Your task to perform on an android device: find photos in the google photos app Image 0: 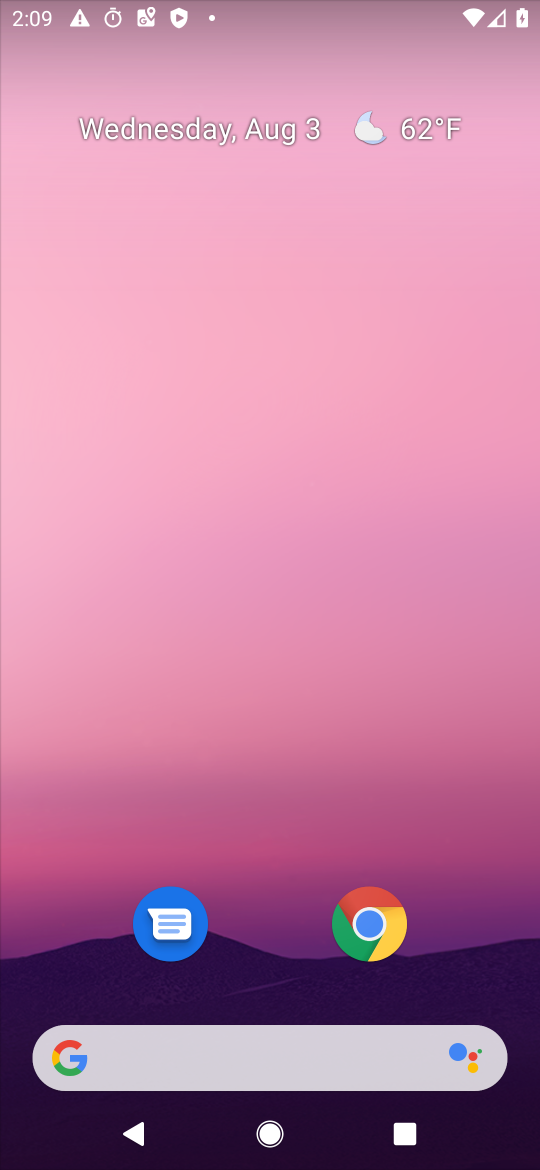
Step 0: press home button
Your task to perform on an android device: find photos in the google photos app Image 1: 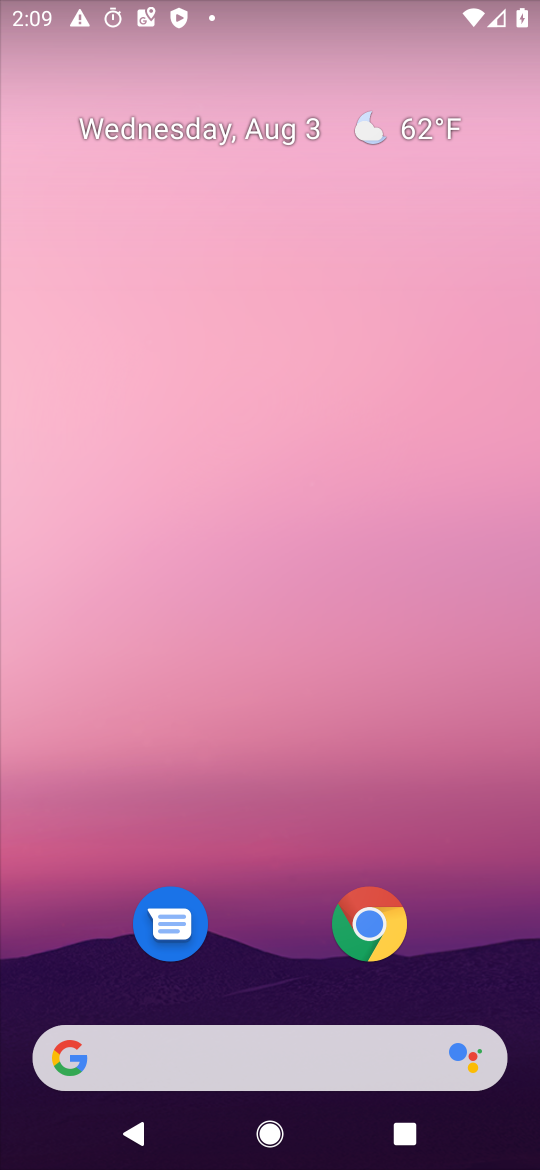
Step 1: drag from (265, 991) to (356, 1)
Your task to perform on an android device: find photos in the google photos app Image 2: 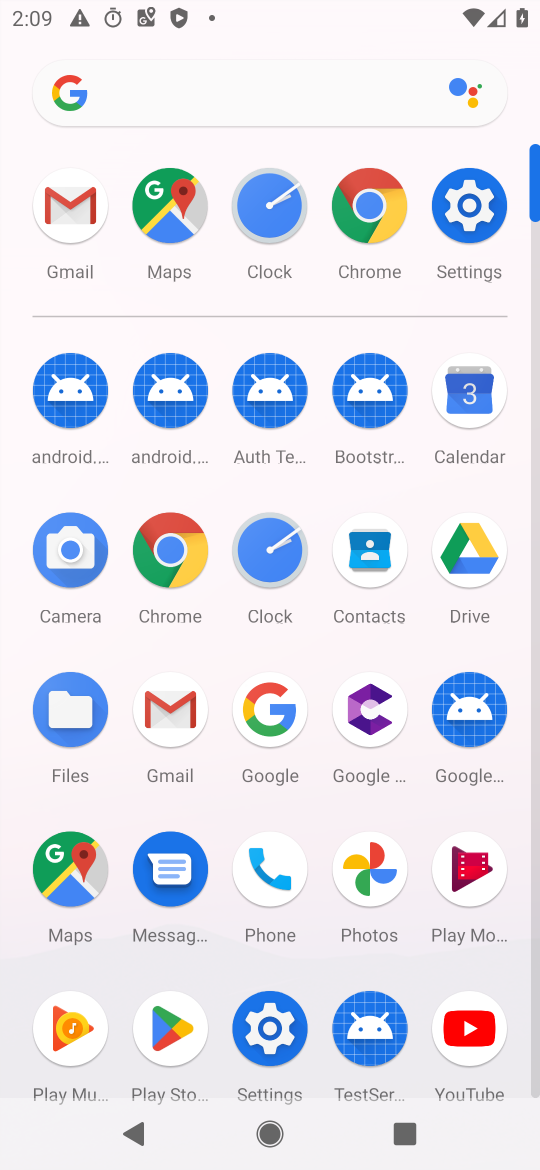
Step 2: click (373, 868)
Your task to perform on an android device: find photos in the google photos app Image 3: 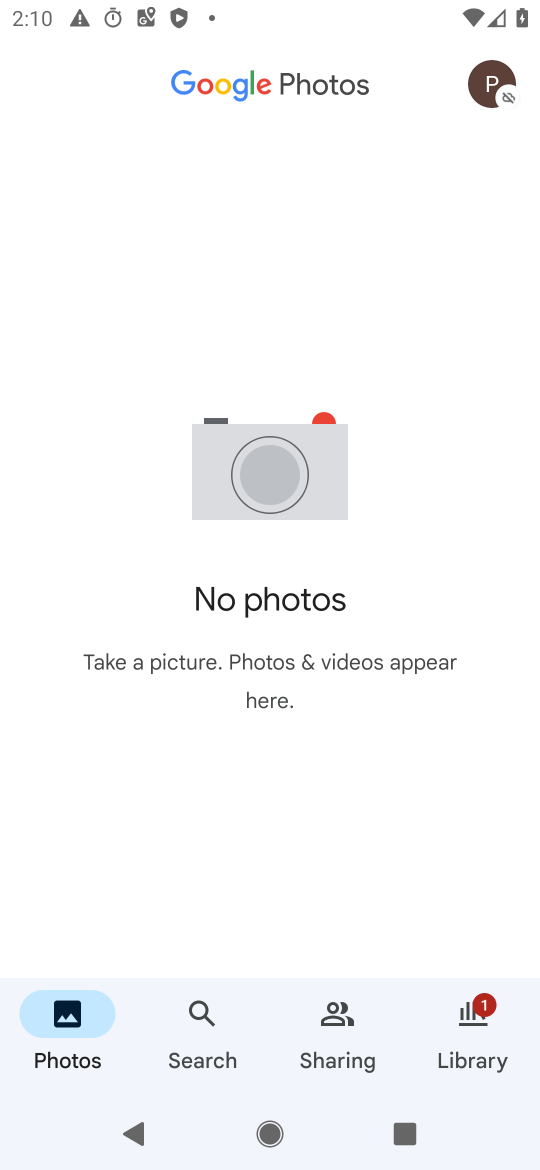
Step 3: task complete